Your task to perform on an android device: Open Google Image 0: 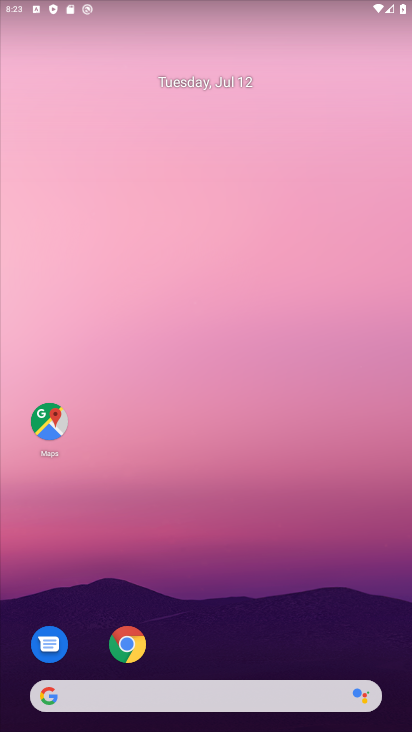
Step 0: click (125, 651)
Your task to perform on an android device: Open Google Image 1: 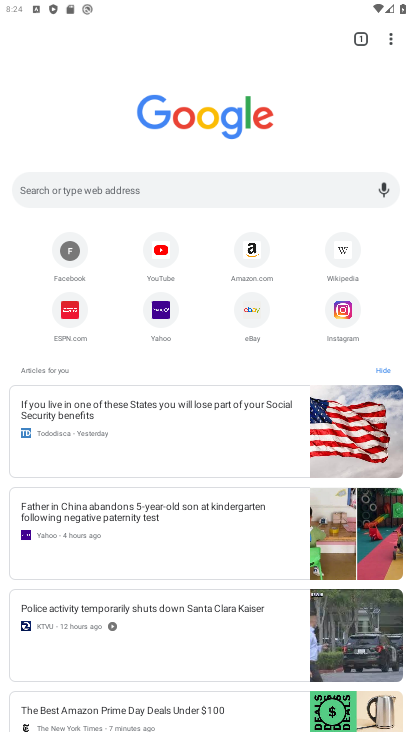
Step 1: task complete